Your task to perform on an android device: Search for "dell xps" on target.com, select the first entry, and add it to the cart. Image 0: 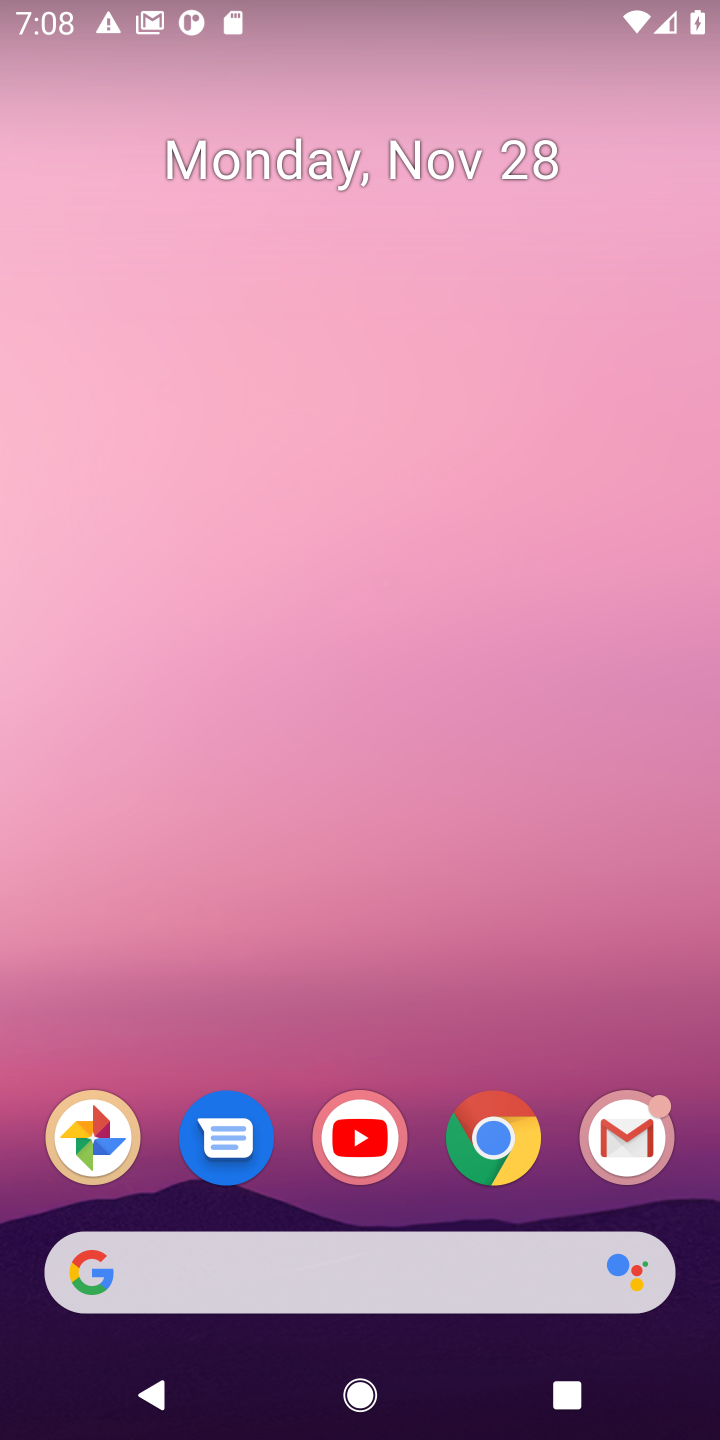
Step 0: click (492, 1144)
Your task to perform on an android device: Search for "dell xps" on target.com, select the first entry, and add it to the cart. Image 1: 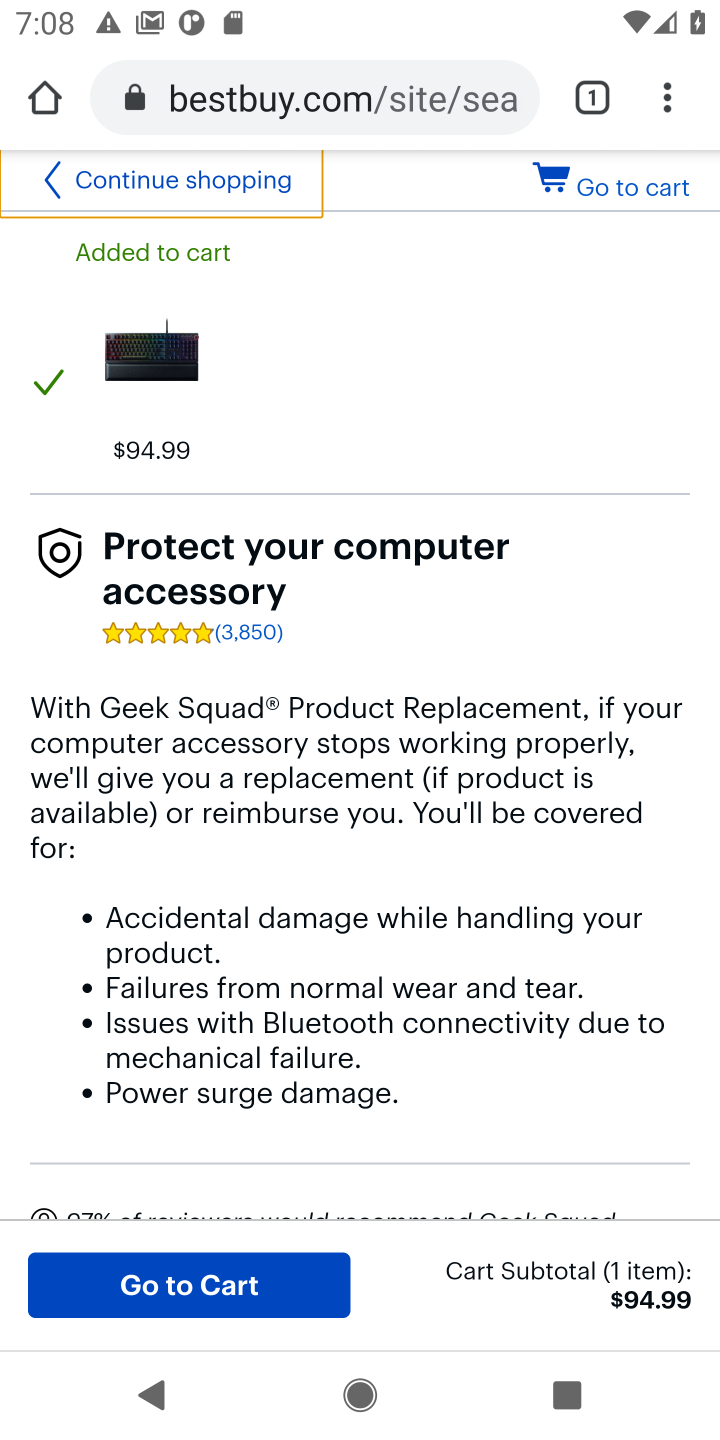
Step 1: click (328, 95)
Your task to perform on an android device: Search for "dell xps" on target.com, select the first entry, and add it to the cart. Image 2: 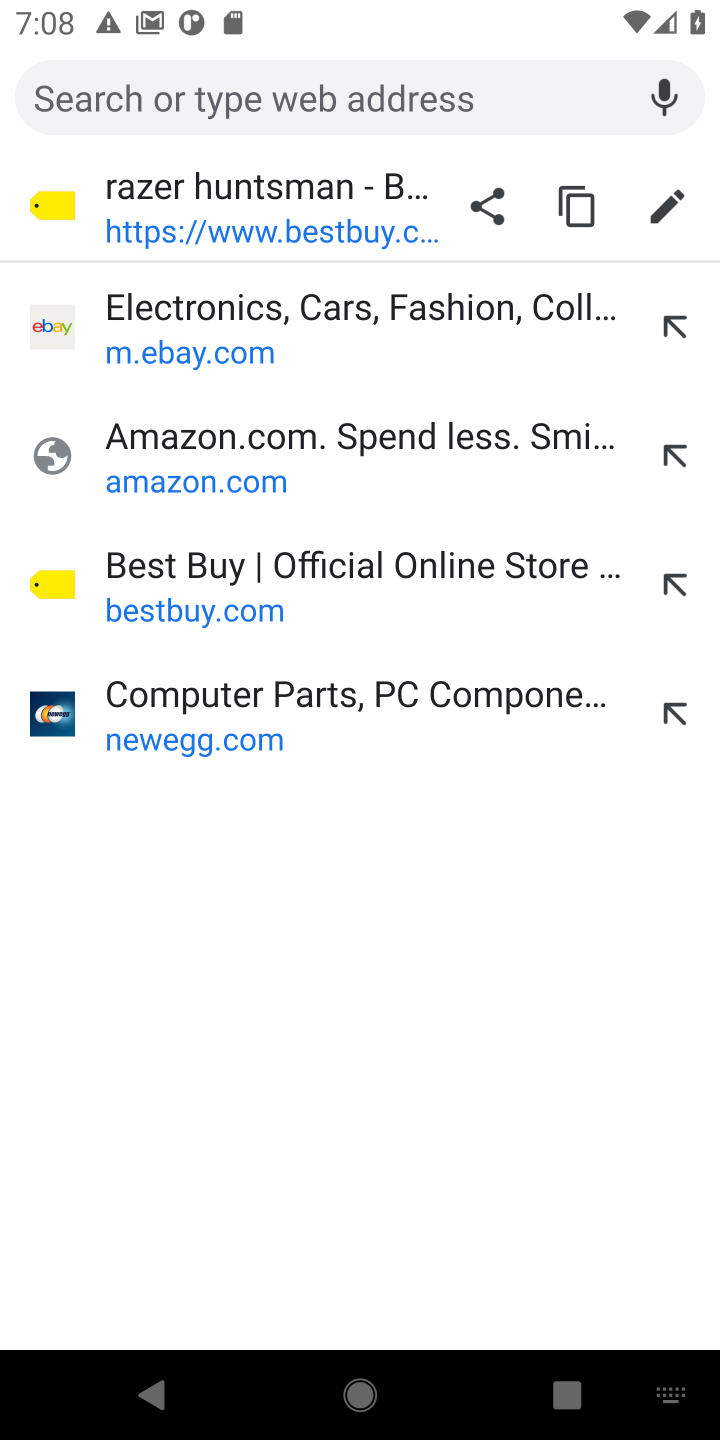
Step 2: type "target.com"
Your task to perform on an android device: Search for "dell xps" on target.com, select the first entry, and add it to the cart. Image 3: 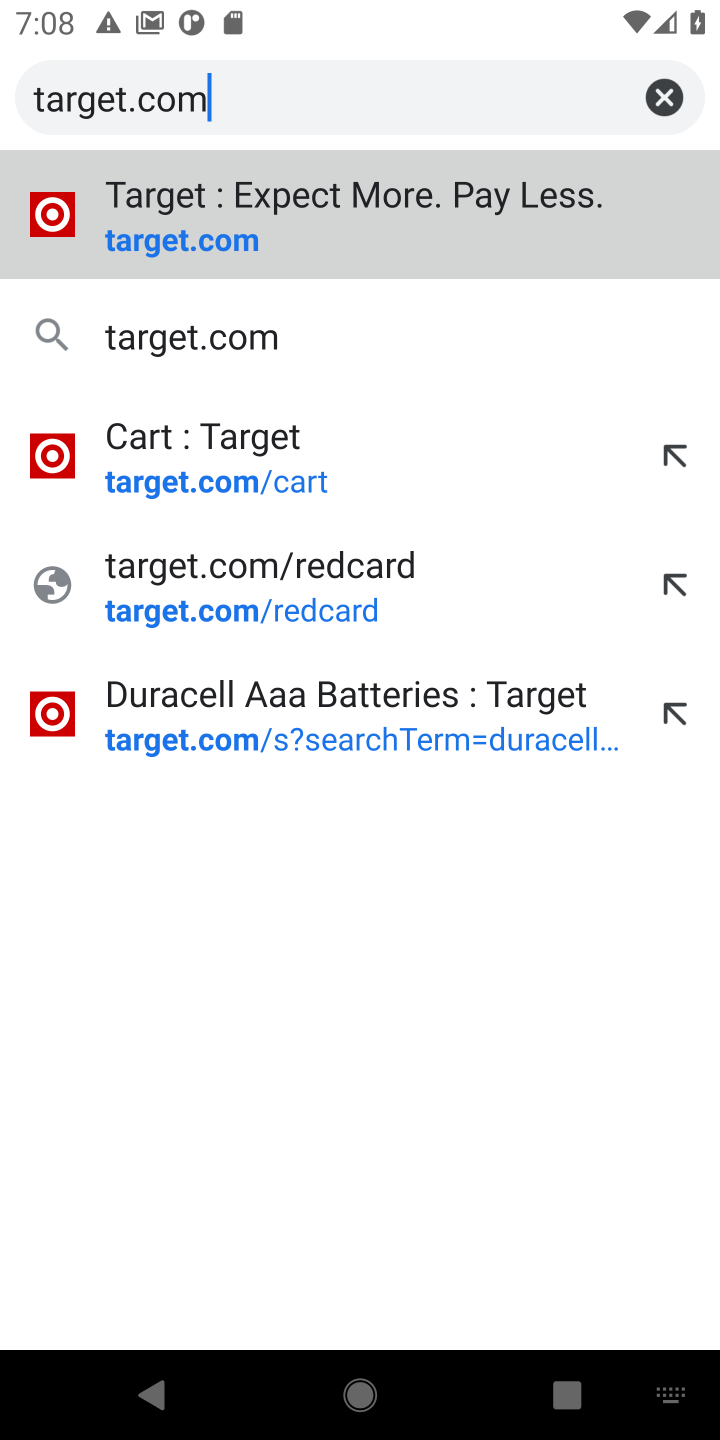
Step 3: click (135, 233)
Your task to perform on an android device: Search for "dell xps" on target.com, select the first entry, and add it to the cart. Image 4: 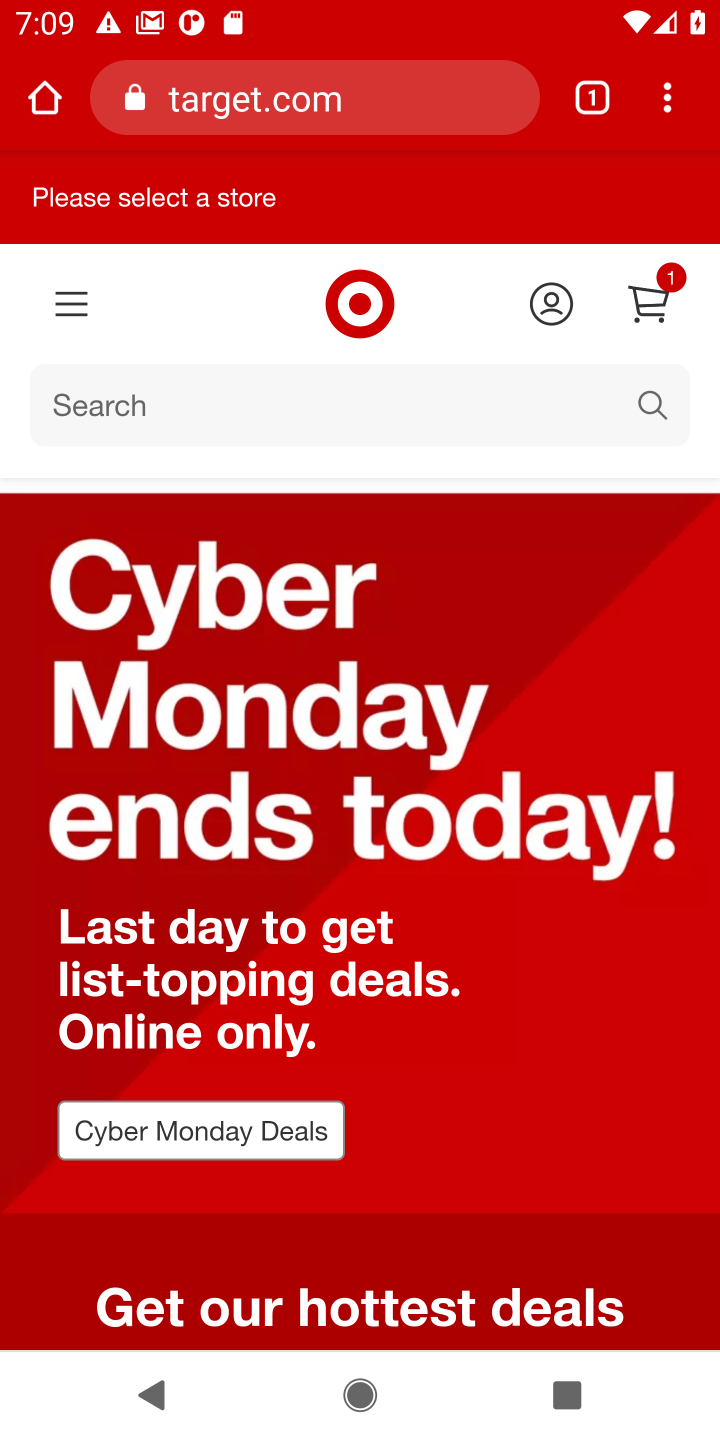
Step 4: click (124, 409)
Your task to perform on an android device: Search for "dell xps" on target.com, select the first entry, and add it to the cart. Image 5: 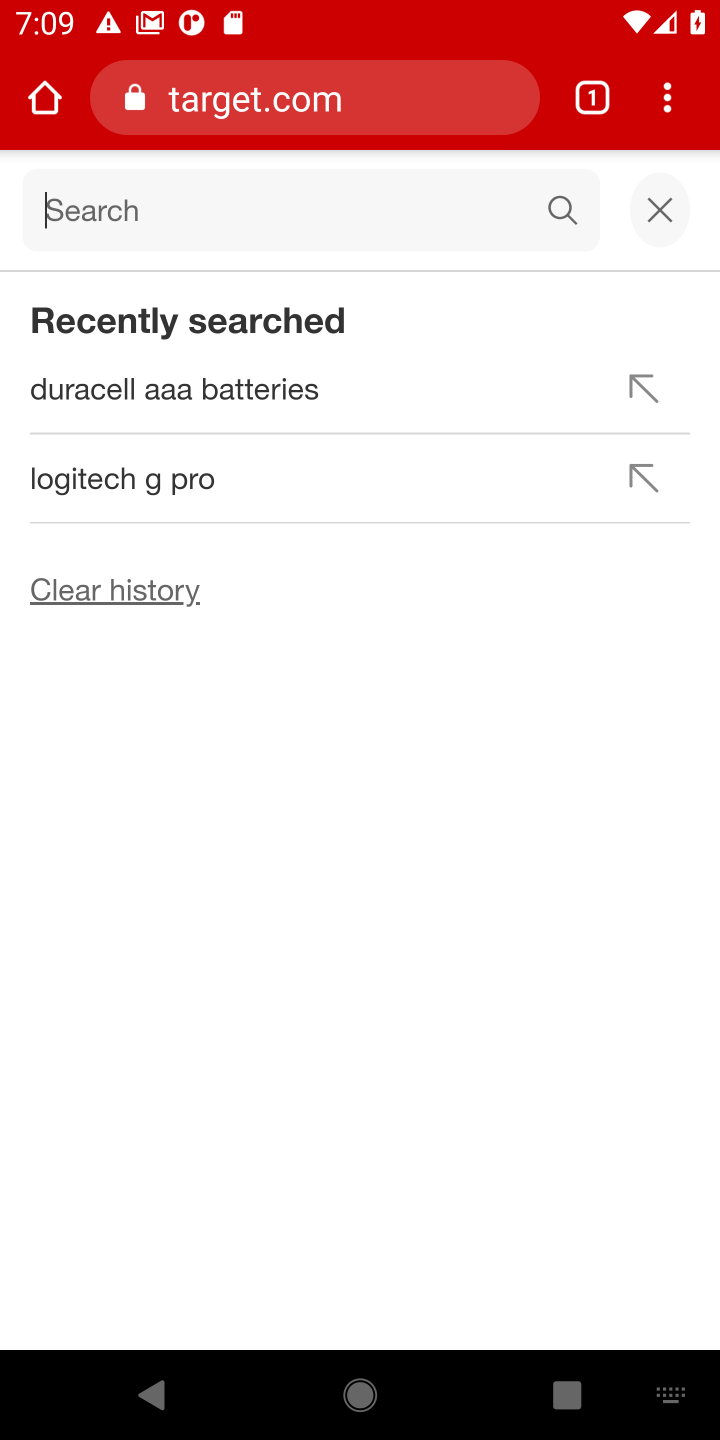
Step 5: type "dell xps"
Your task to perform on an android device: Search for "dell xps" on target.com, select the first entry, and add it to the cart. Image 6: 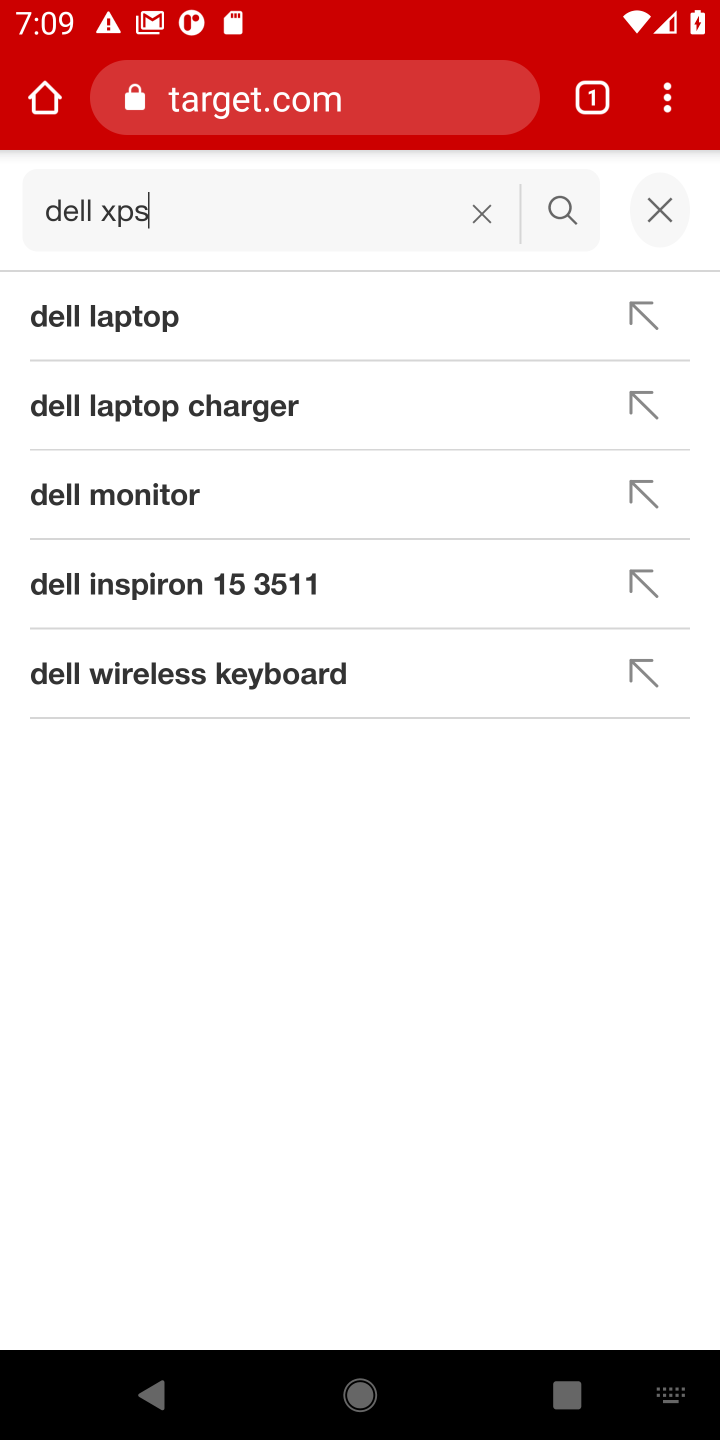
Step 6: click (555, 216)
Your task to perform on an android device: Search for "dell xps" on target.com, select the first entry, and add it to the cart. Image 7: 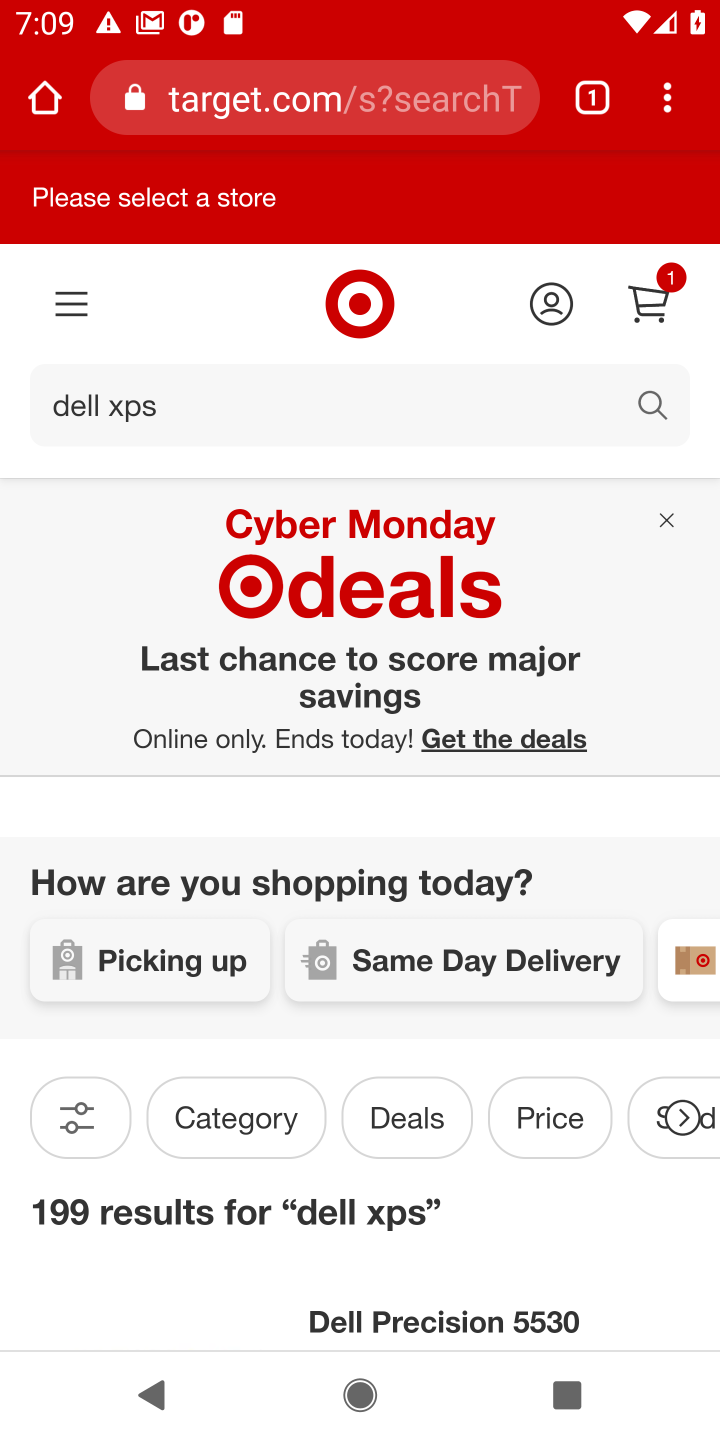
Step 7: task complete